Your task to perform on an android device: Do I have any events tomorrow? Image 0: 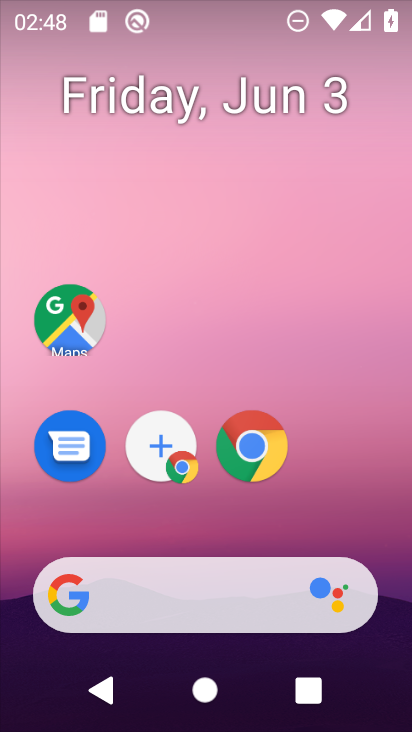
Step 0: drag from (271, 710) to (266, 28)
Your task to perform on an android device: Do I have any events tomorrow? Image 1: 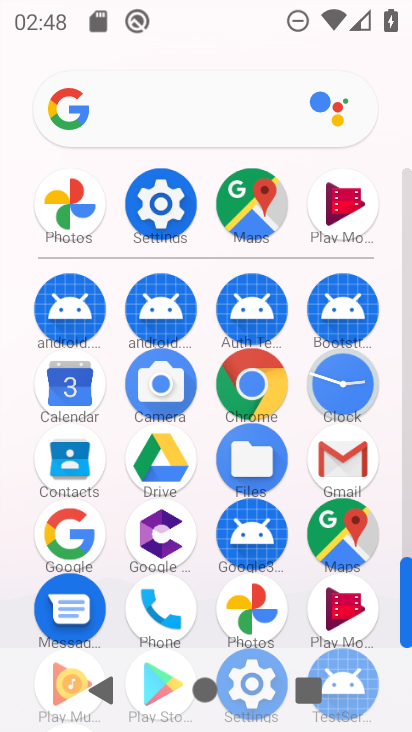
Step 1: click (51, 382)
Your task to perform on an android device: Do I have any events tomorrow? Image 2: 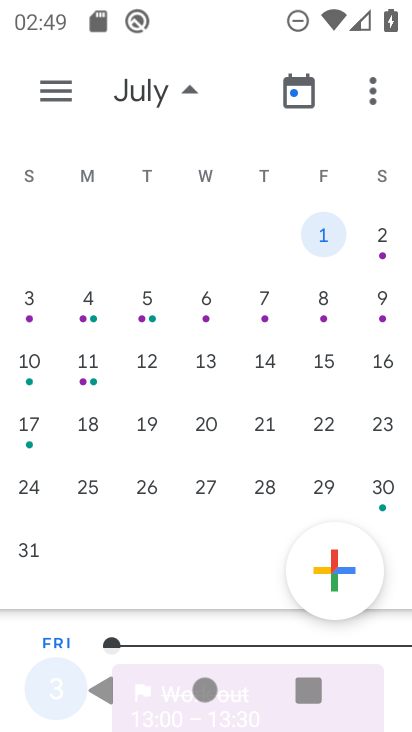
Step 2: task complete